Your task to perform on an android device: star an email in the gmail app Image 0: 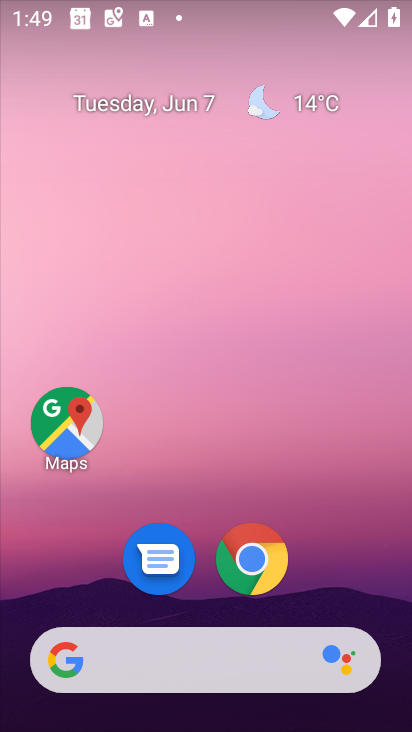
Step 0: drag from (12, 648) to (312, 178)
Your task to perform on an android device: star an email in the gmail app Image 1: 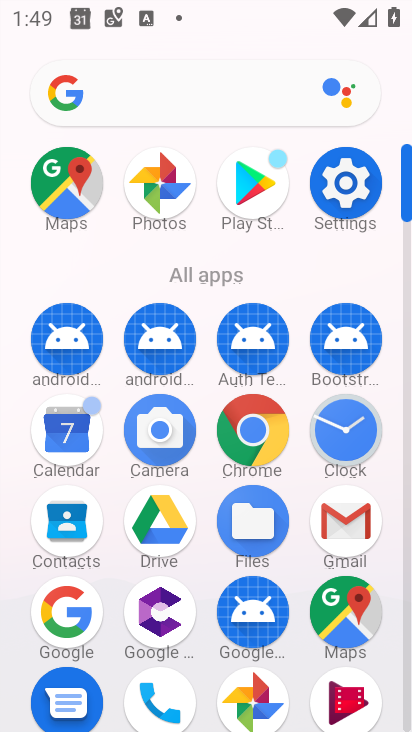
Step 1: click (338, 523)
Your task to perform on an android device: star an email in the gmail app Image 2: 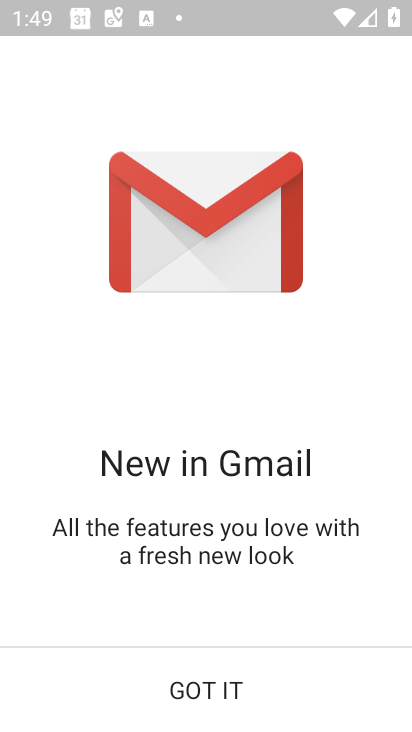
Step 2: click (188, 691)
Your task to perform on an android device: star an email in the gmail app Image 3: 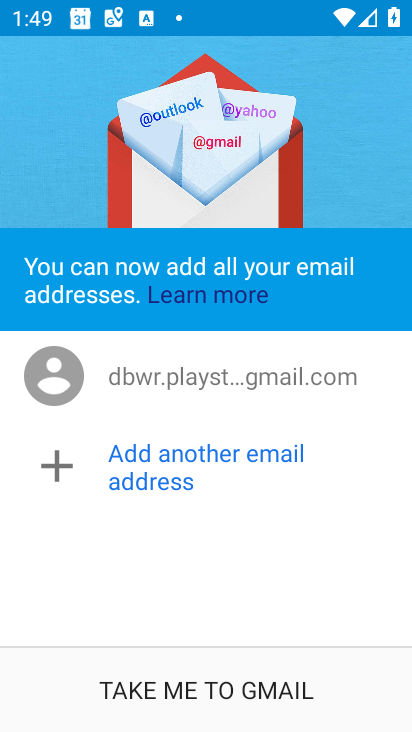
Step 3: click (199, 688)
Your task to perform on an android device: star an email in the gmail app Image 4: 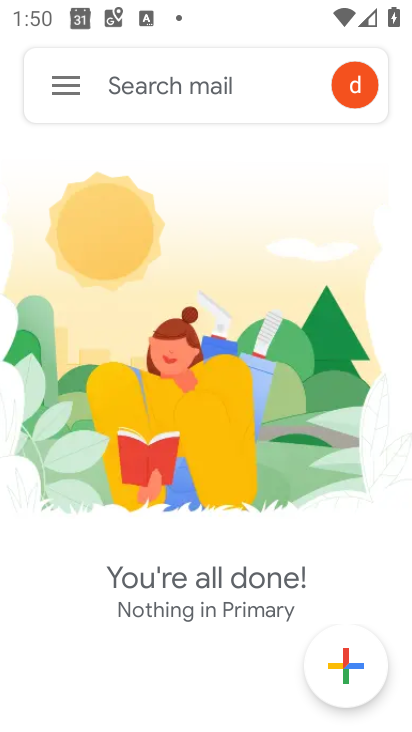
Step 4: click (70, 90)
Your task to perform on an android device: star an email in the gmail app Image 5: 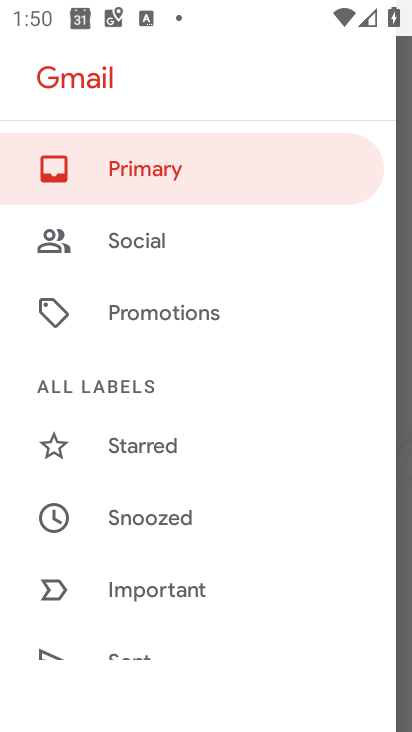
Step 5: drag from (73, 631) to (206, 291)
Your task to perform on an android device: star an email in the gmail app Image 6: 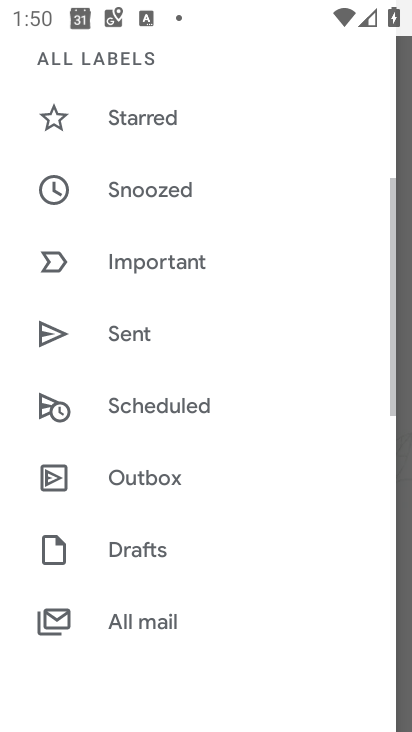
Step 6: drag from (35, 553) to (199, 266)
Your task to perform on an android device: star an email in the gmail app Image 7: 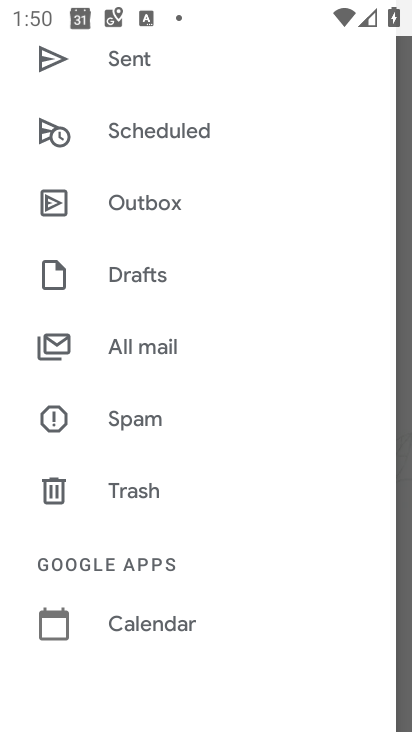
Step 7: click (177, 352)
Your task to perform on an android device: star an email in the gmail app Image 8: 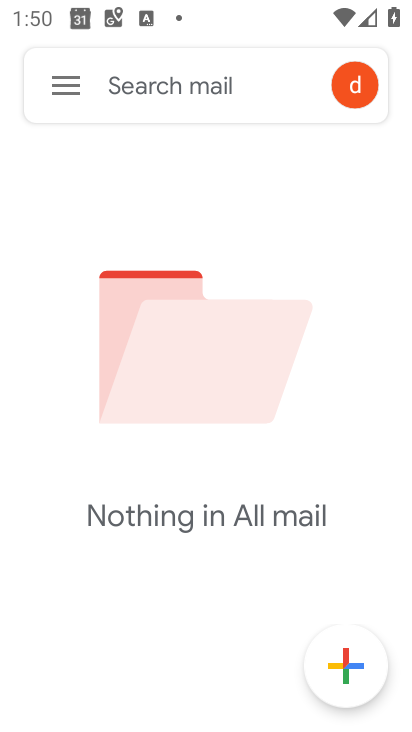
Step 8: task complete